Your task to perform on an android device: change notification settings in the gmail app Image 0: 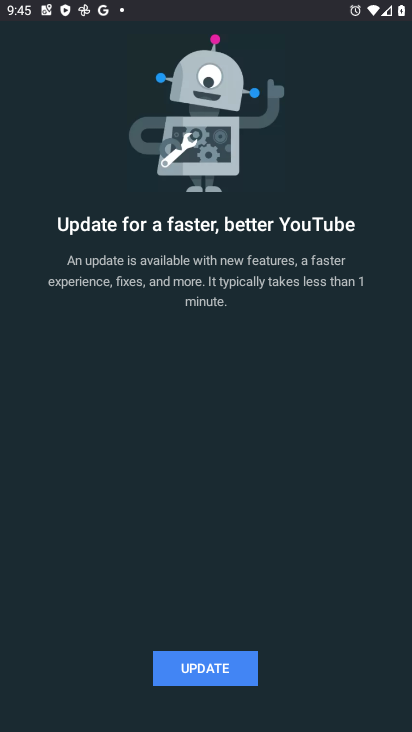
Step 0: press home button
Your task to perform on an android device: change notification settings in the gmail app Image 1: 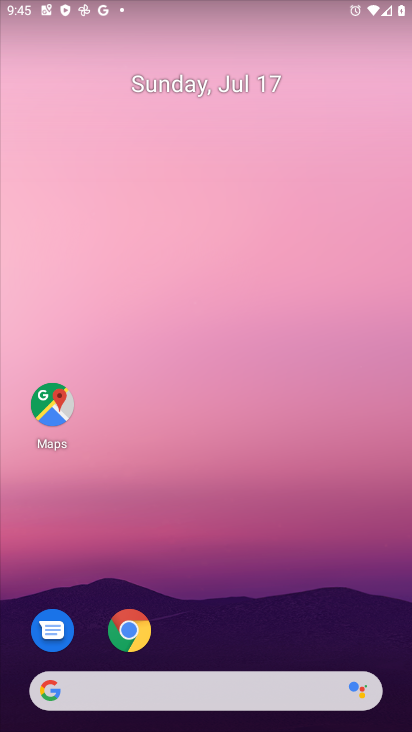
Step 1: drag from (179, 575) to (164, 263)
Your task to perform on an android device: change notification settings in the gmail app Image 2: 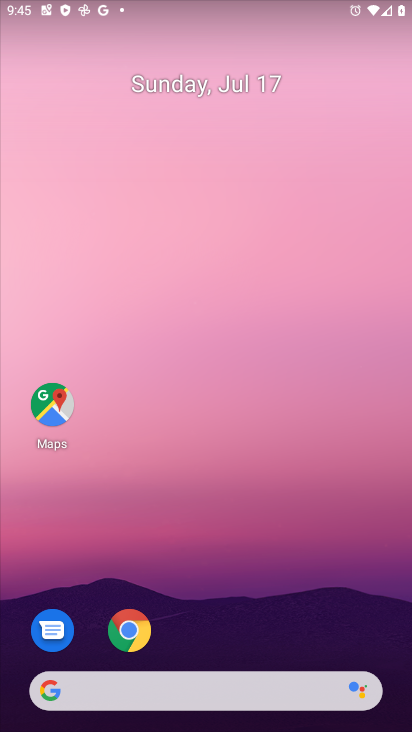
Step 2: drag from (211, 321) to (179, 60)
Your task to perform on an android device: change notification settings in the gmail app Image 3: 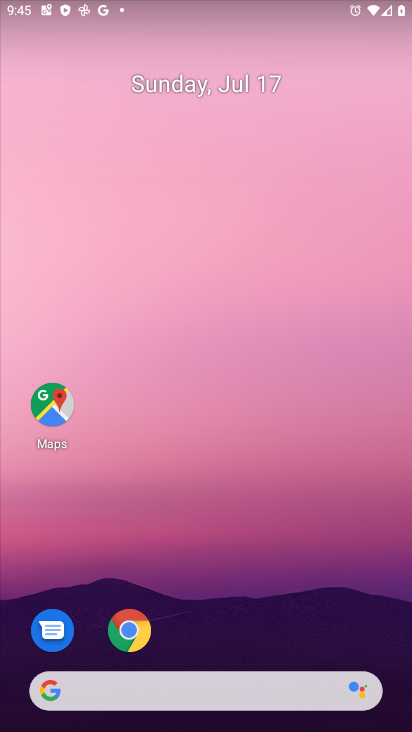
Step 3: drag from (200, 565) to (200, 23)
Your task to perform on an android device: change notification settings in the gmail app Image 4: 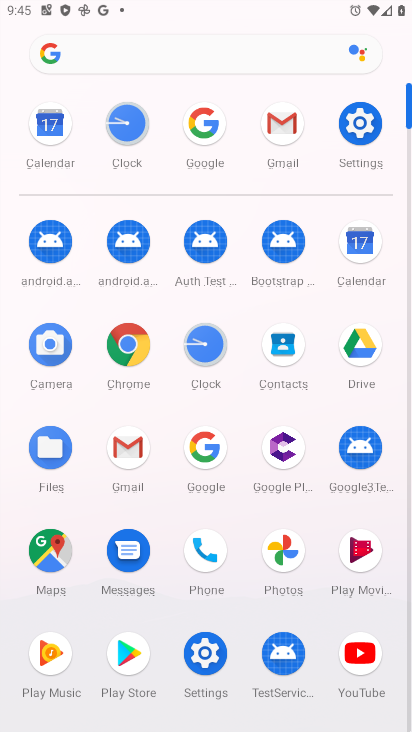
Step 4: click (351, 146)
Your task to perform on an android device: change notification settings in the gmail app Image 5: 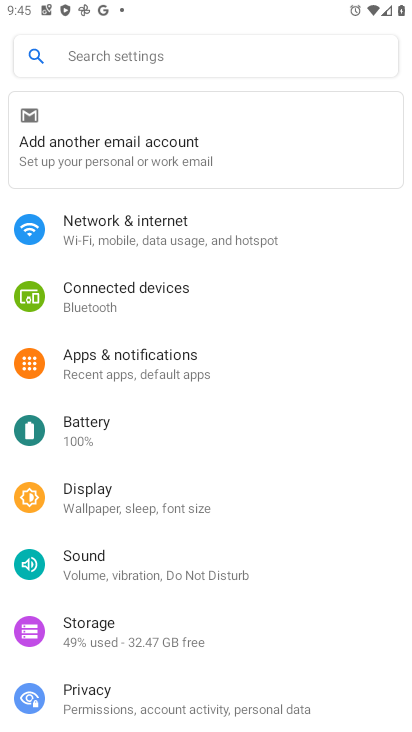
Step 5: click (101, 369)
Your task to perform on an android device: change notification settings in the gmail app Image 6: 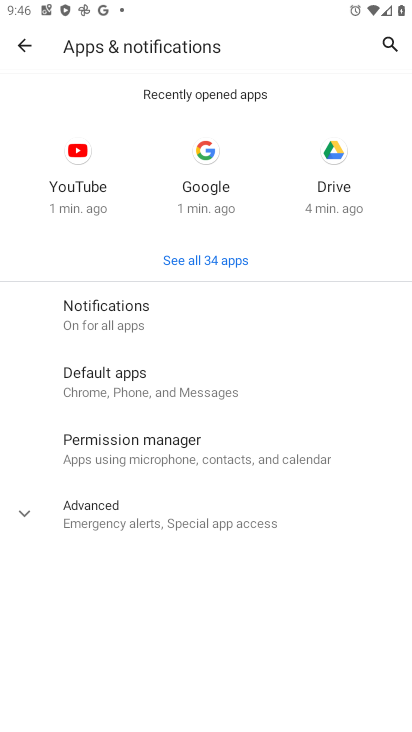
Step 6: click (110, 301)
Your task to perform on an android device: change notification settings in the gmail app Image 7: 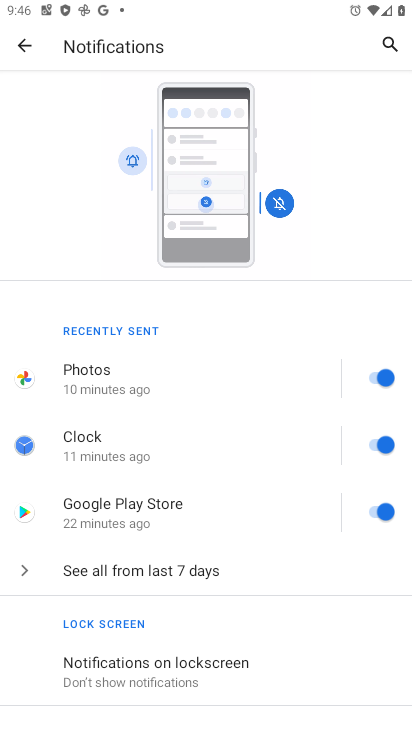
Step 7: drag from (150, 597) to (150, 513)
Your task to perform on an android device: change notification settings in the gmail app Image 8: 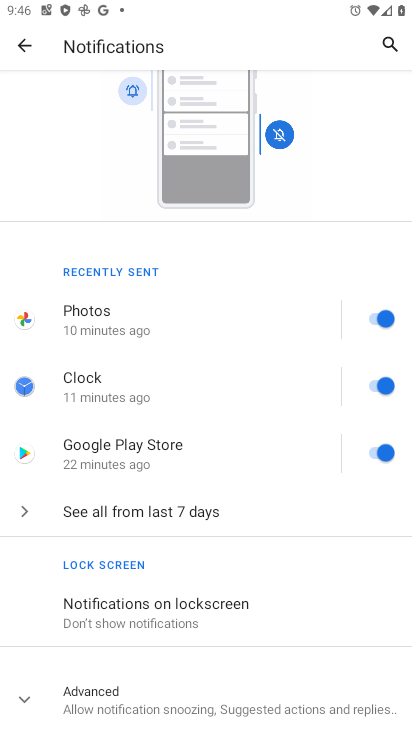
Step 8: click (132, 614)
Your task to perform on an android device: change notification settings in the gmail app Image 9: 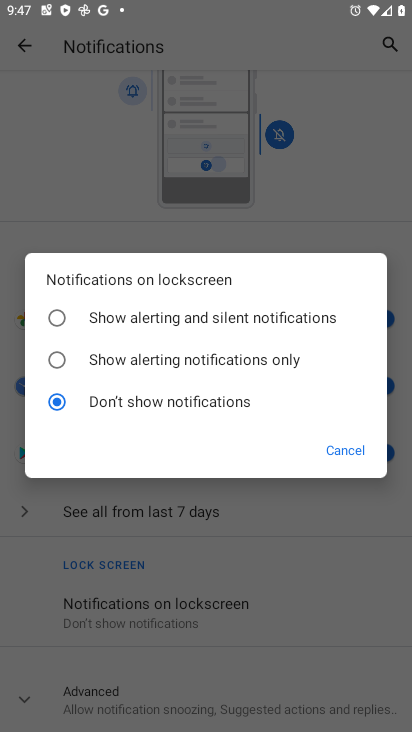
Step 9: click (54, 316)
Your task to perform on an android device: change notification settings in the gmail app Image 10: 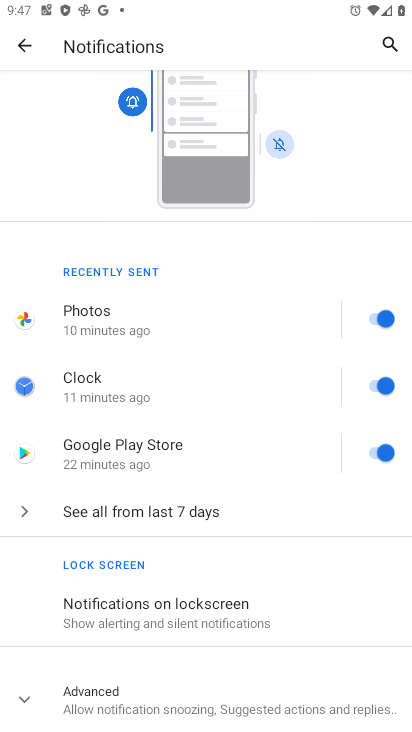
Step 10: task complete